Your task to perform on an android device: turn notification dots off Image 0: 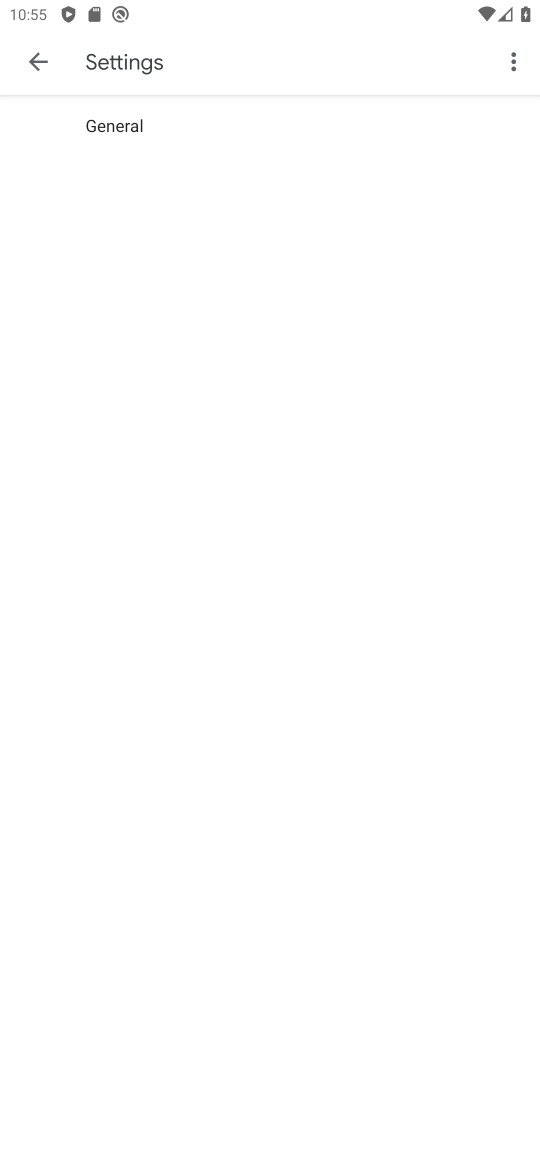
Step 0: press home button
Your task to perform on an android device: turn notification dots off Image 1: 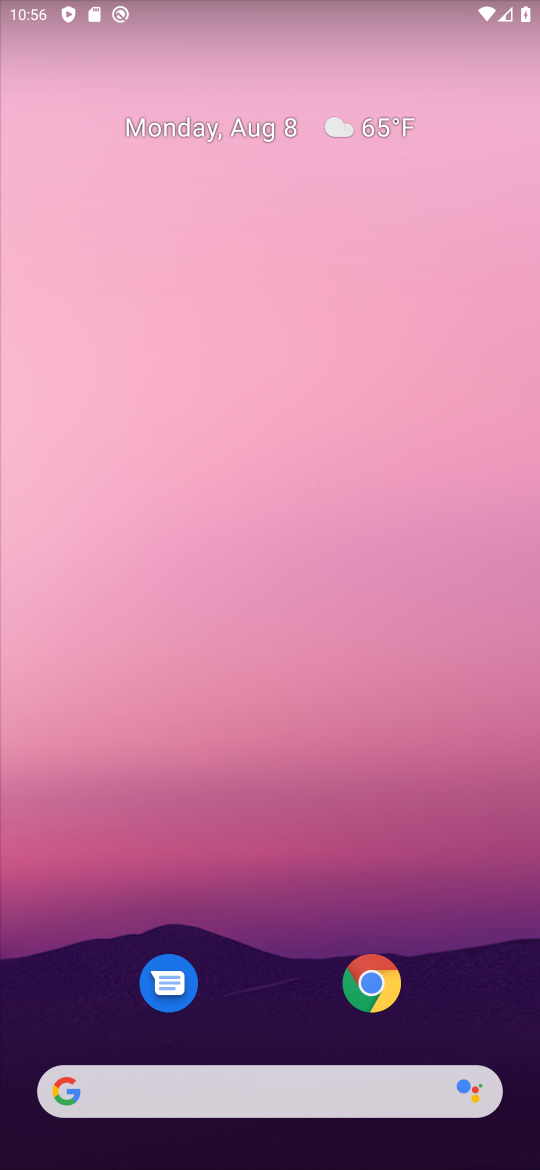
Step 1: drag from (289, 1040) to (385, 87)
Your task to perform on an android device: turn notification dots off Image 2: 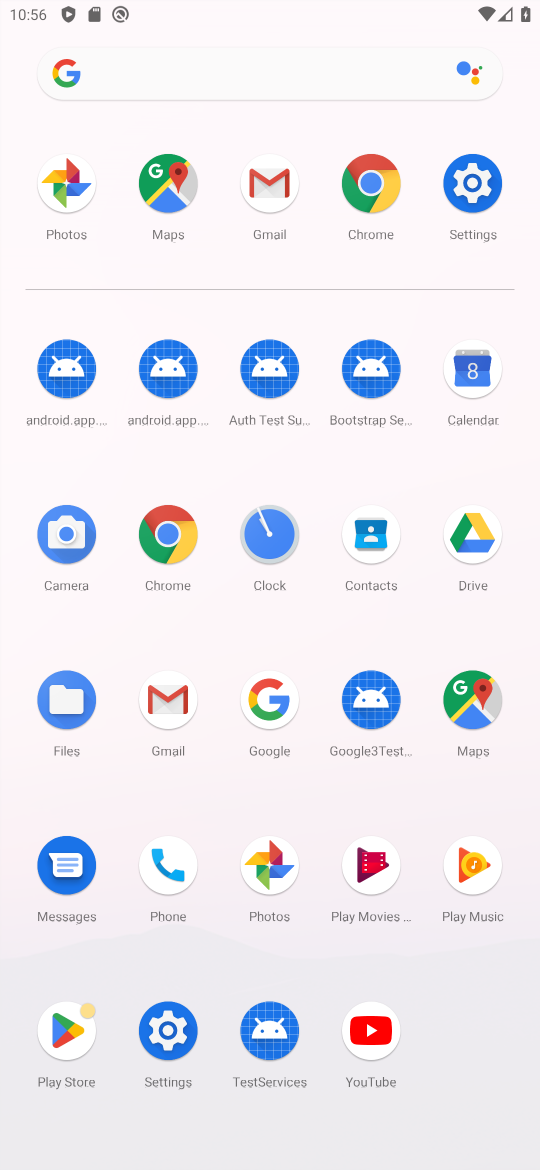
Step 2: click (457, 202)
Your task to perform on an android device: turn notification dots off Image 3: 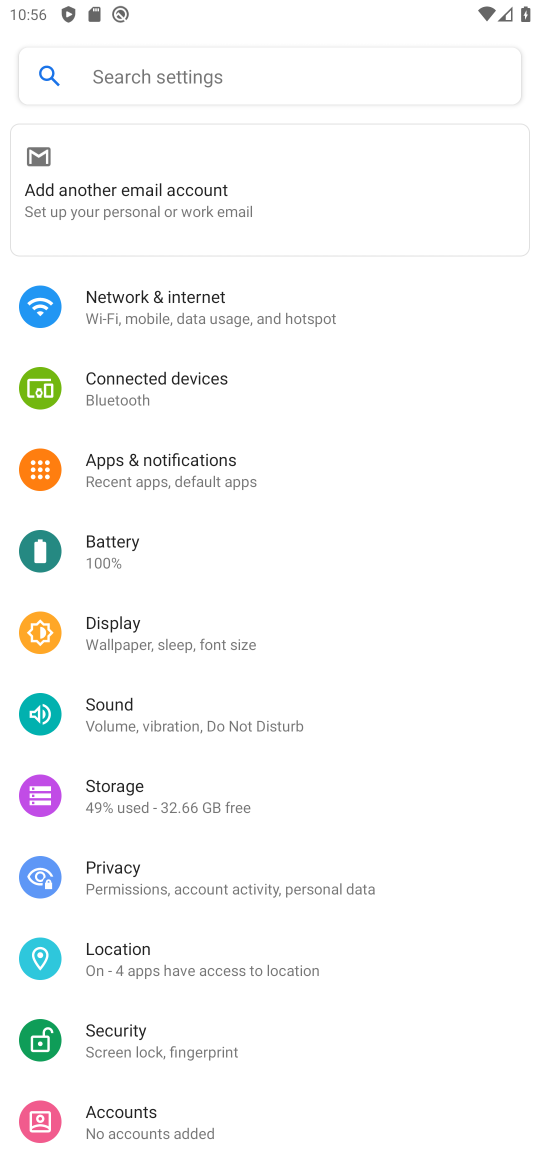
Step 3: task complete